Your task to perform on an android device: change the clock display to show seconds Image 0: 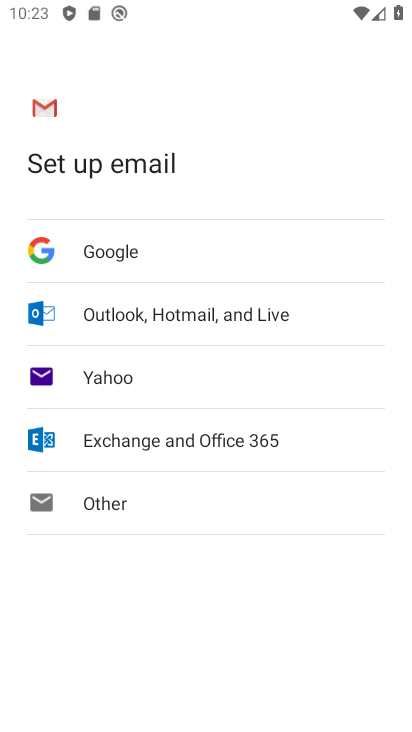
Step 0: press home button
Your task to perform on an android device: change the clock display to show seconds Image 1: 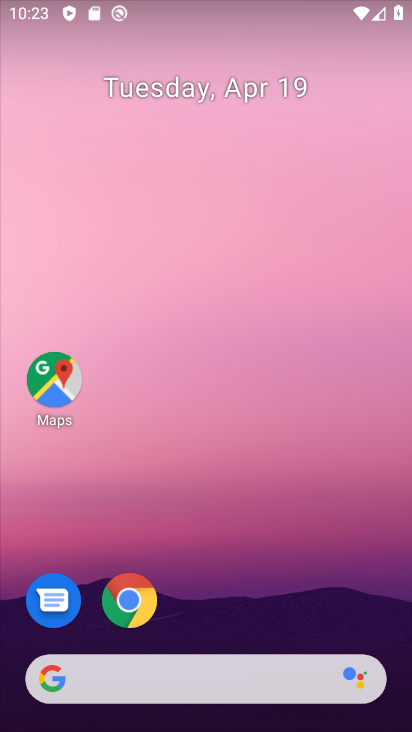
Step 1: drag from (189, 571) to (409, 169)
Your task to perform on an android device: change the clock display to show seconds Image 2: 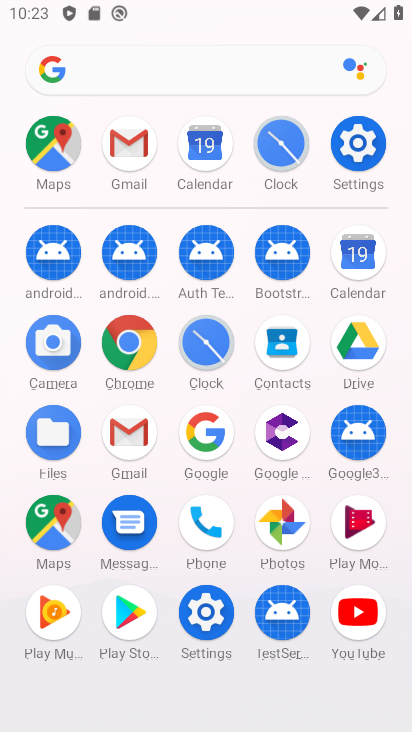
Step 2: click (204, 420)
Your task to perform on an android device: change the clock display to show seconds Image 3: 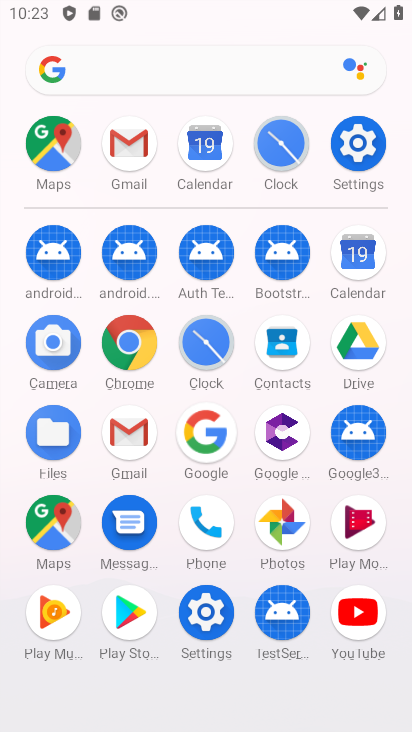
Step 3: click (107, 338)
Your task to perform on an android device: change the clock display to show seconds Image 4: 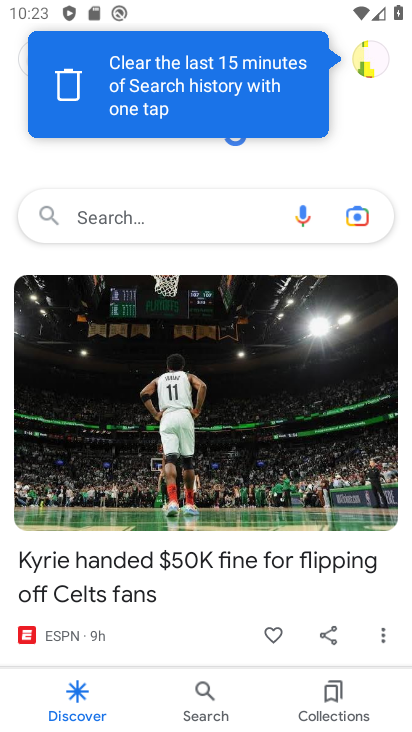
Step 4: press home button
Your task to perform on an android device: change the clock display to show seconds Image 5: 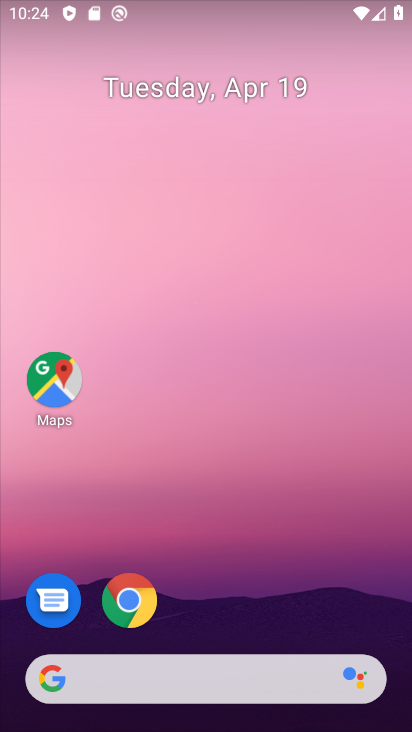
Step 5: drag from (228, 273) to (338, 7)
Your task to perform on an android device: change the clock display to show seconds Image 6: 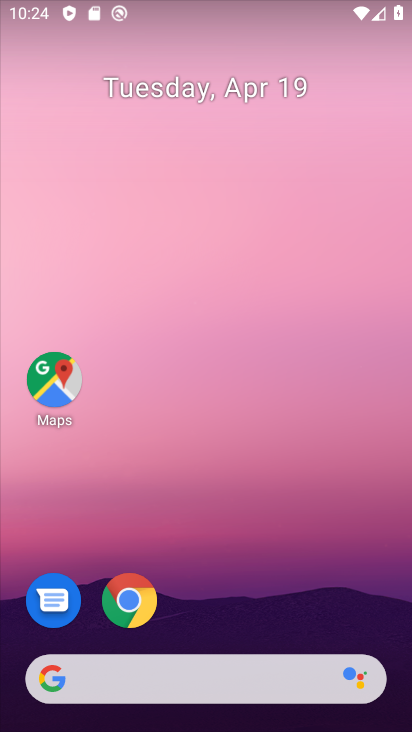
Step 6: drag from (242, 32) to (283, 0)
Your task to perform on an android device: change the clock display to show seconds Image 7: 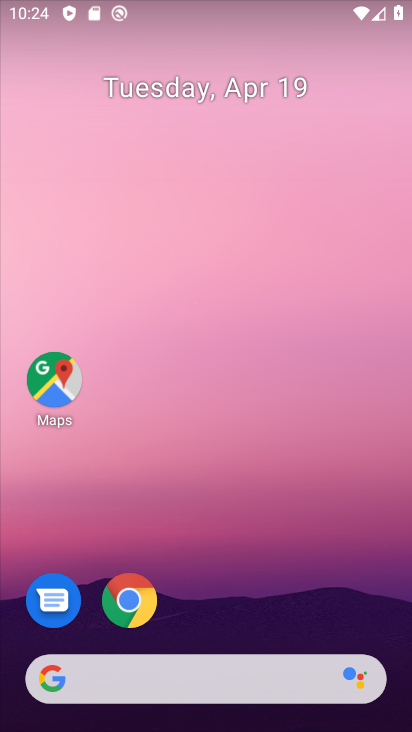
Step 7: drag from (205, 624) to (301, 32)
Your task to perform on an android device: change the clock display to show seconds Image 8: 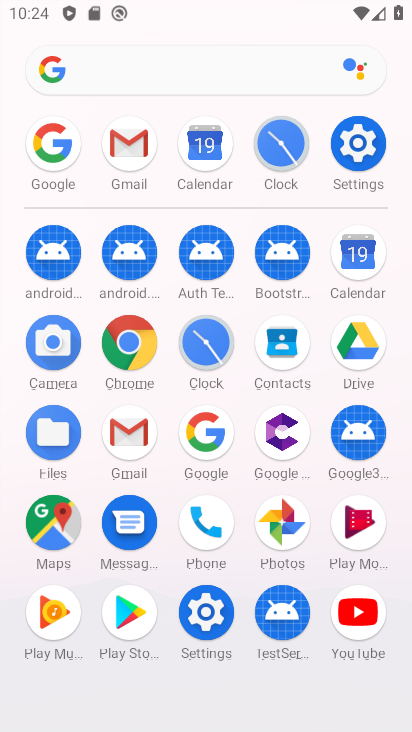
Step 8: drag from (202, 490) to (297, 0)
Your task to perform on an android device: change the clock display to show seconds Image 9: 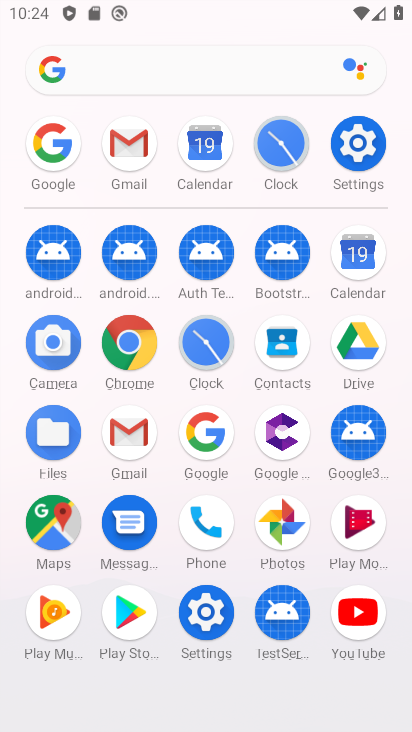
Step 9: drag from (191, 487) to (189, 368)
Your task to perform on an android device: change the clock display to show seconds Image 10: 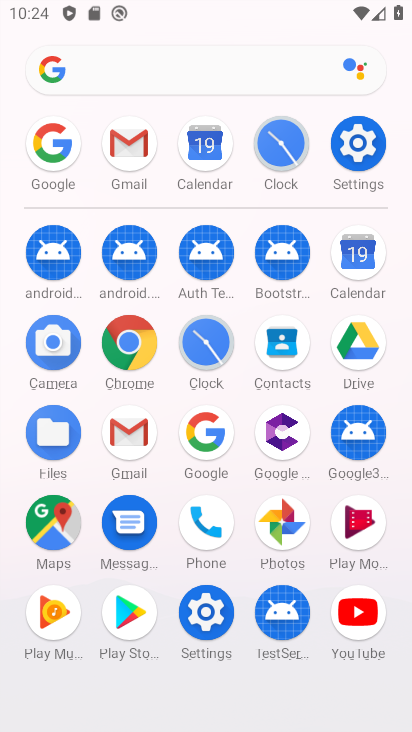
Step 10: click (204, 355)
Your task to perform on an android device: change the clock display to show seconds Image 11: 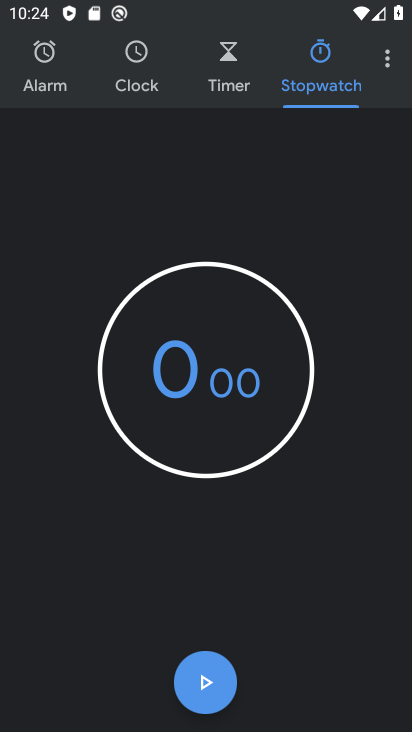
Step 11: click (385, 73)
Your task to perform on an android device: change the clock display to show seconds Image 12: 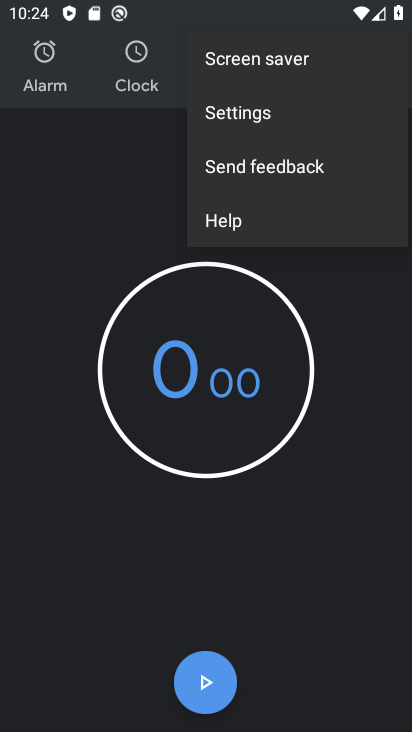
Step 12: click (271, 122)
Your task to perform on an android device: change the clock display to show seconds Image 13: 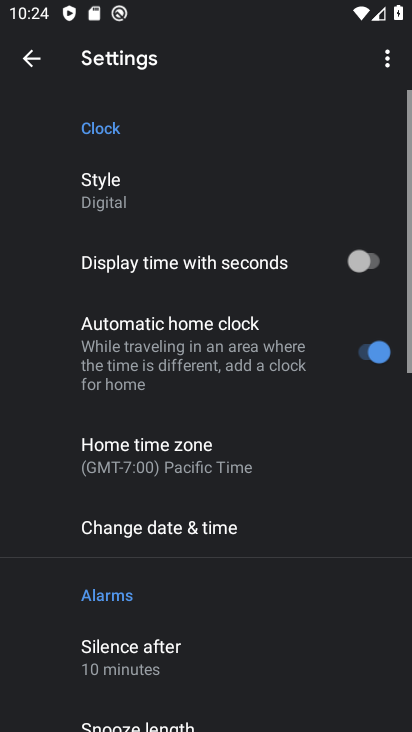
Step 13: click (122, 205)
Your task to perform on an android device: change the clock display to show seconds Image 14: 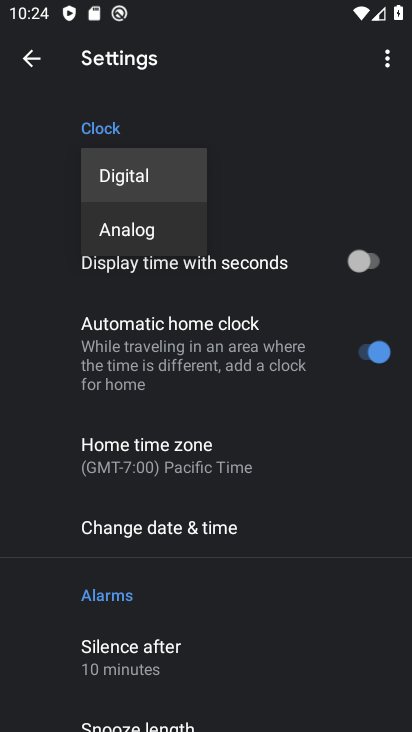
Step 14: click (128, 238)
Your task to perform on an android device: change the clock display to show seconds Image 15: 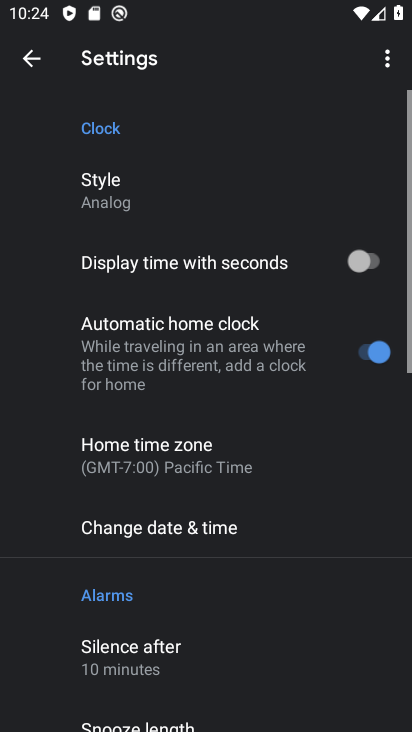
Step 15: click (376, 260)
Your task to perform on an android device: change the clock display to show seconds Image 16: 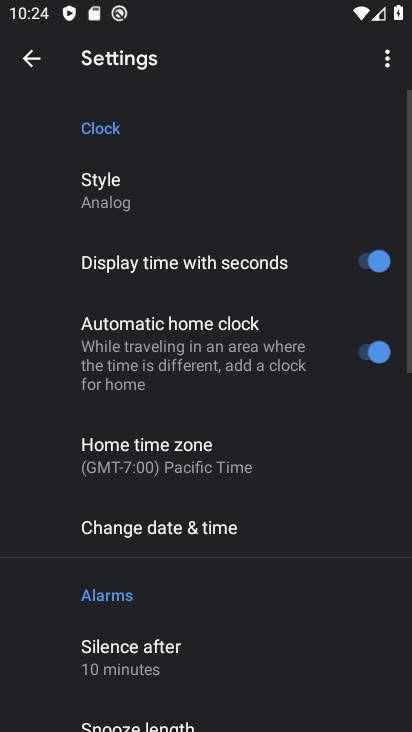
Step 16: task complete